Your task to perform on an android device: Go to settings Image 0: 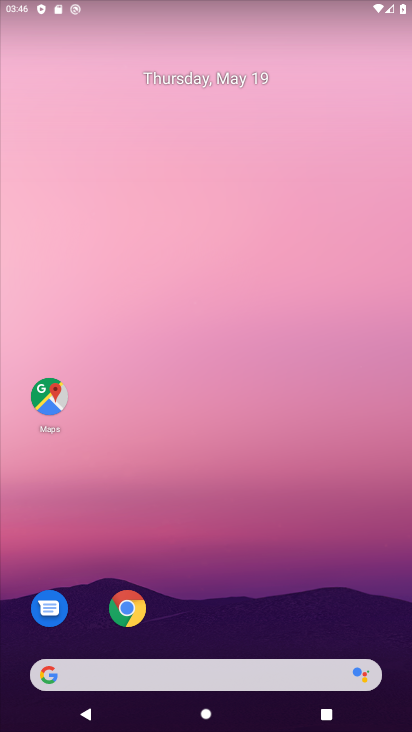
Step 0: drag from (234, 594) to (271, 4)
Your task to perform on an android device: Go to settings Image 1: 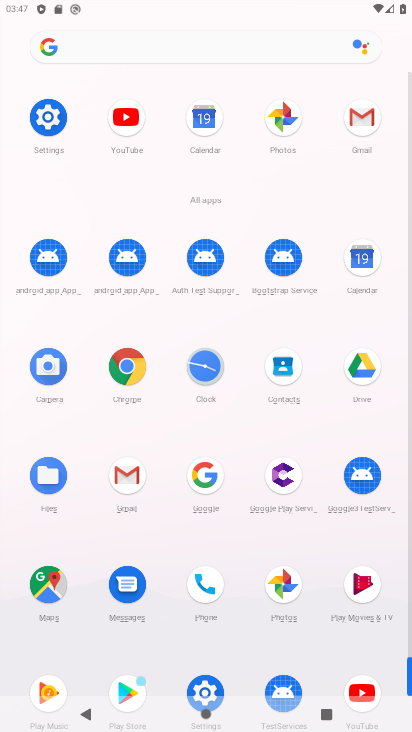
Step 1: click (46, 117)
Your task to perform on an android device: Go to settings Image 2: 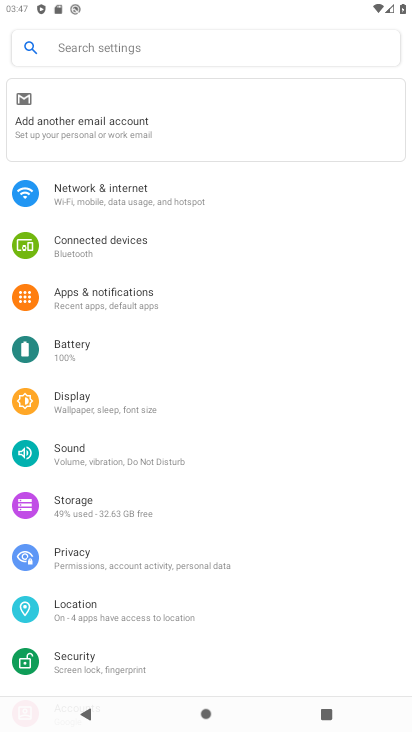
Step 2: task complete